Your task to perform on an android device: Go to Yahoo.com Image 0: 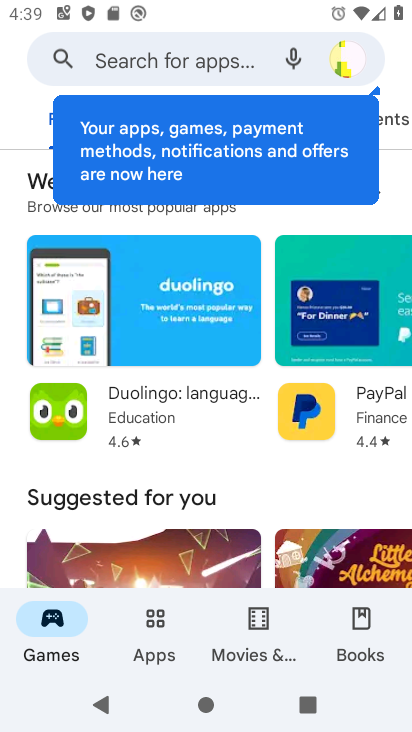
Step 0: press home button
Your task to perform on an android device: Go to Yahoo.com Image 1: 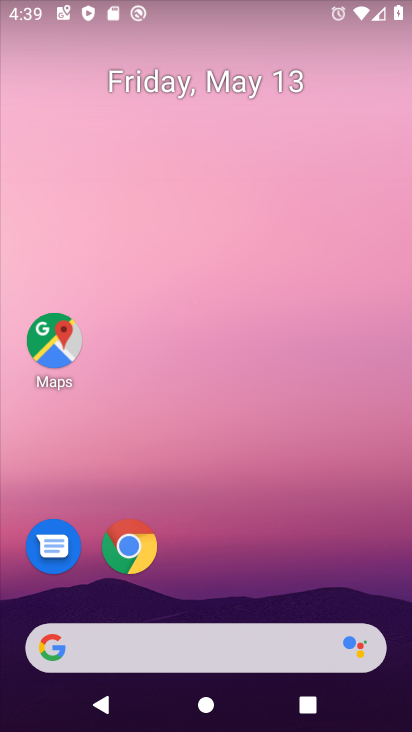
Step 1: click (138, 552)
Your task to perform on an android device: Go to Yahoo.com Image 2: 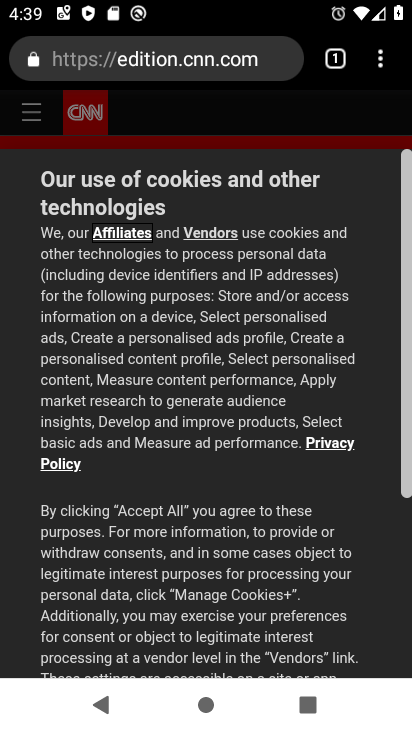
Step 2: click (238, 61)
Your task to perform on an android device: Go to Yahoo.com Image 3: 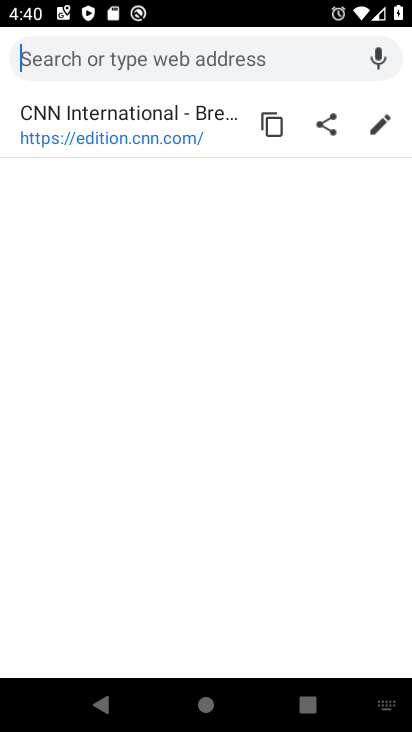
Step 3: type "Yahoo.com"
Your task to perform on an android device: Go to Yahoo.com Image 4: 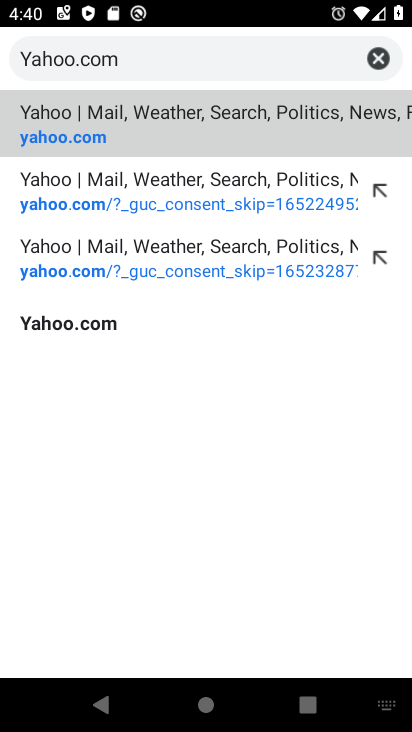
Step 4: click (94, 314)
Your task to perform on an android device: Go to Yahoo.com Image 5: 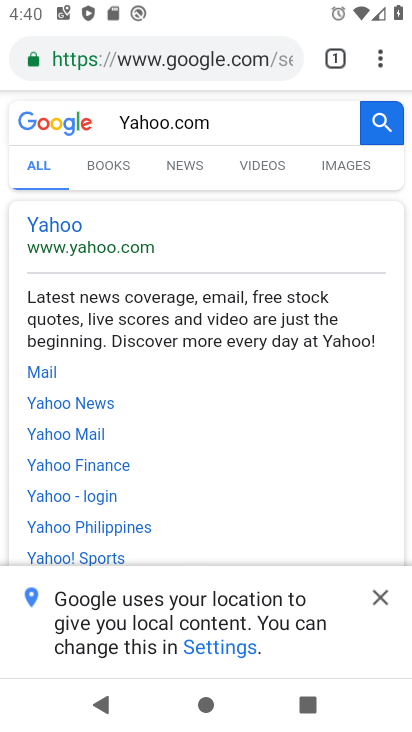
Step 5: task complete